Your task to perform on an android device: What's the weather going to be tomorrow? Image 0: 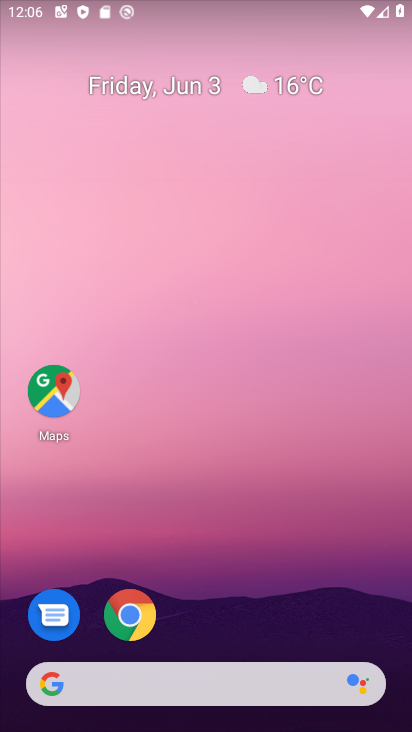
Step 0: click (129, 613)
Your task to perform on an android device: What's the weather going to be tomorrow? Image 1: 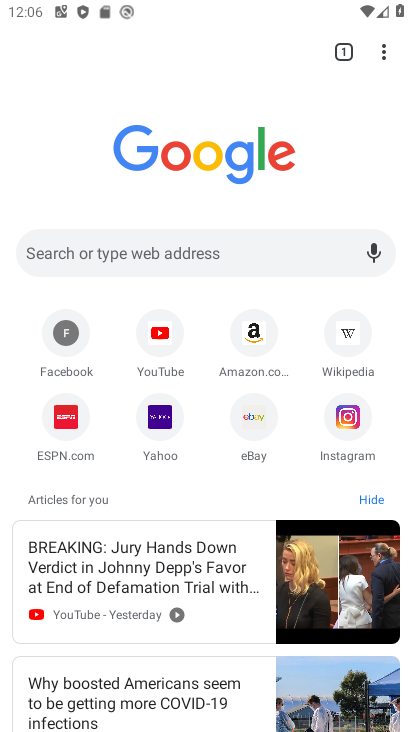
Step 1: click (247, 245)
Your task to perform on an android device: What's the weather going to be tomorrow? Image 2: 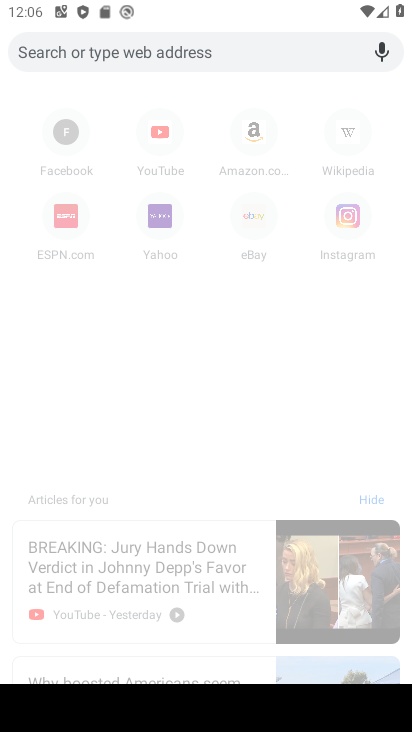
Step 2: click (130, 39)
Your task to perform on an android device: What's the weather going to be tomorrow? Image 3: 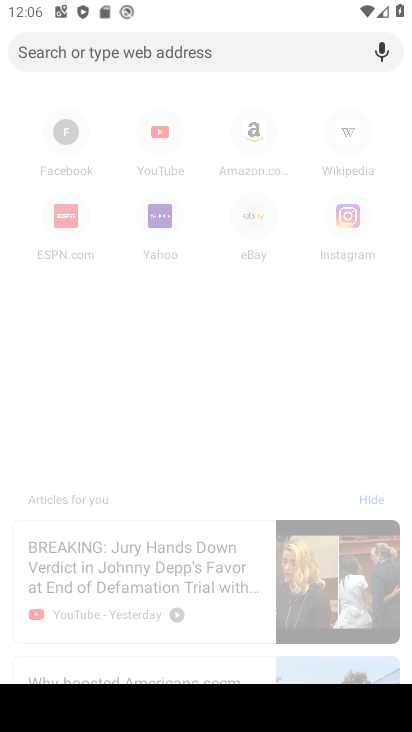
Step 3: type "vegetarian restaurants "
Your task to perform on an android device: What's the weather going to be tomorrow? Image 4: 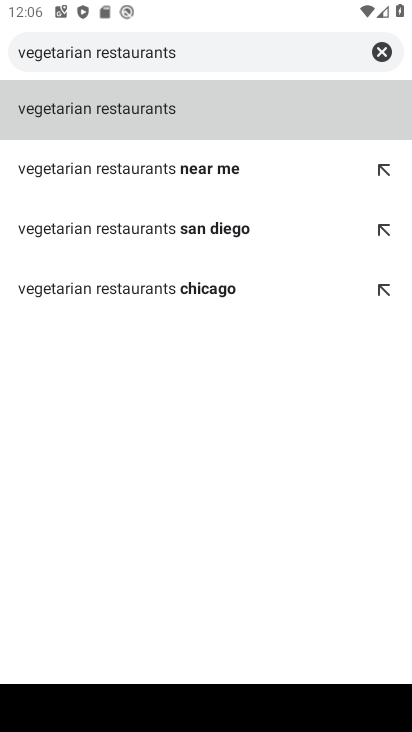
Step 4: click (381, 53)
Your task to perform on an android device: What's the weather going to be tomorrow? Image 5: 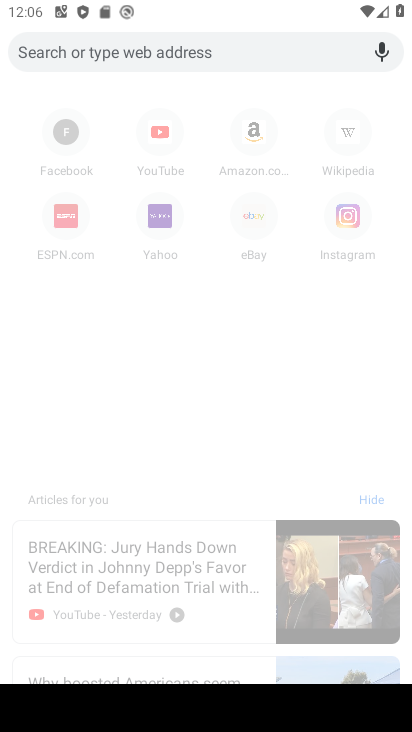
Step 5: click (144, 43)
Your task to perform on an android device: What's the weather going to be tomorrow? Image 6: 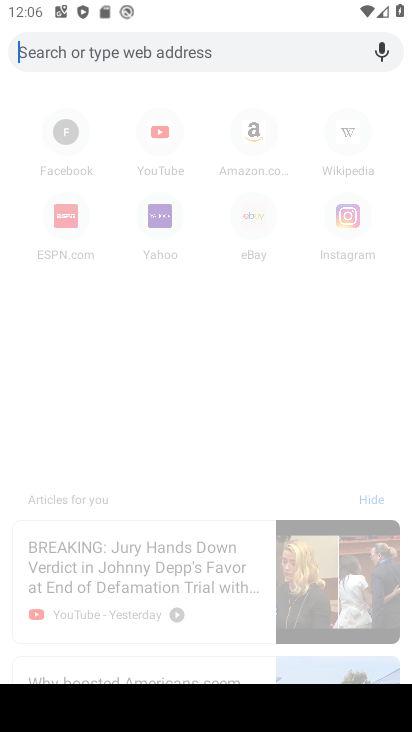
Step 6: type "What's the weather going to be tomorrow?"
Your task to perform on an android device: What's the weather going to be tomorrow? Image 7: 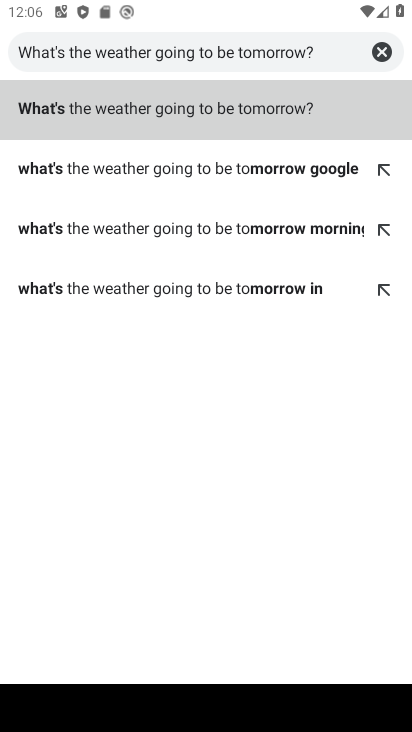
Step 7: click (276, 110)
Your task to perform on an android device: What's the weather going to be tomorrow? Image 8: 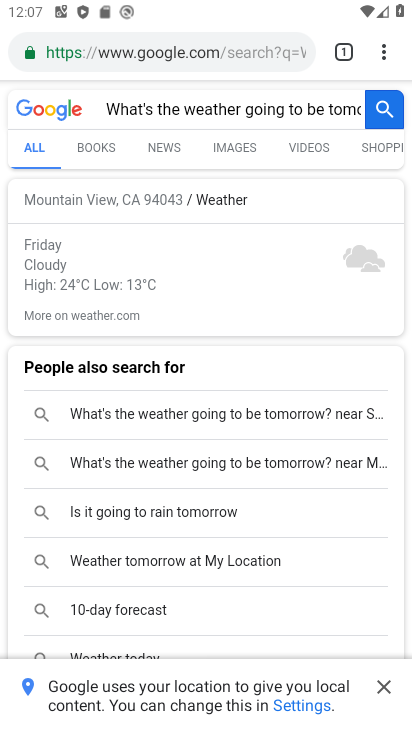
Step 8: task complete